Your task to perform on an android device: turn on bluetooth scan Image 0: 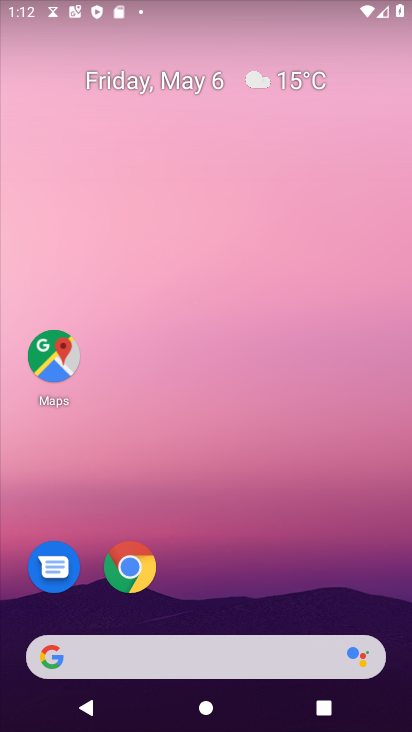
Step 0: drag from (281, 552) to (277, 124)
Your task to perform on an android device: turn on bluetooth scan Image 1: 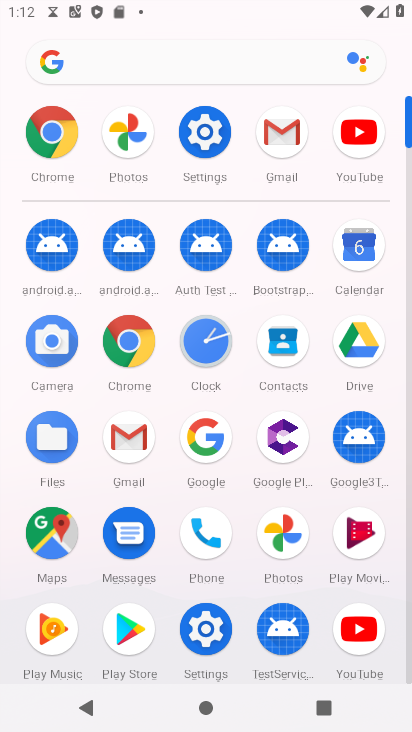
Step 1: click (192, 136)
Your task to perform on an android device: turn on bluetooth scan Image 2: 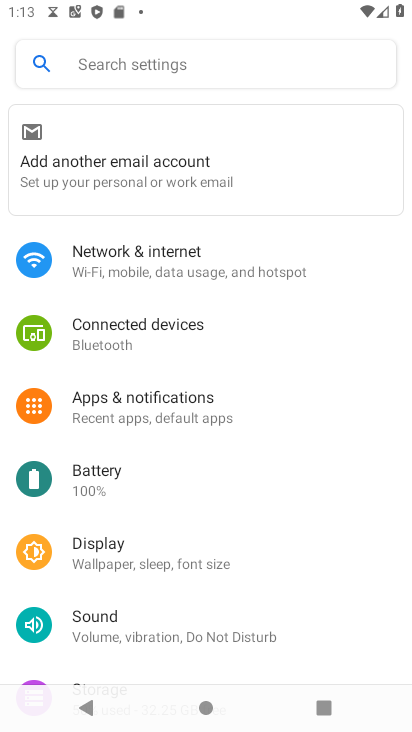
Step 2: drag from (181, 594) to (245, 230)
Your task to perform on an android device: turn on bluetooth scan Image 3: 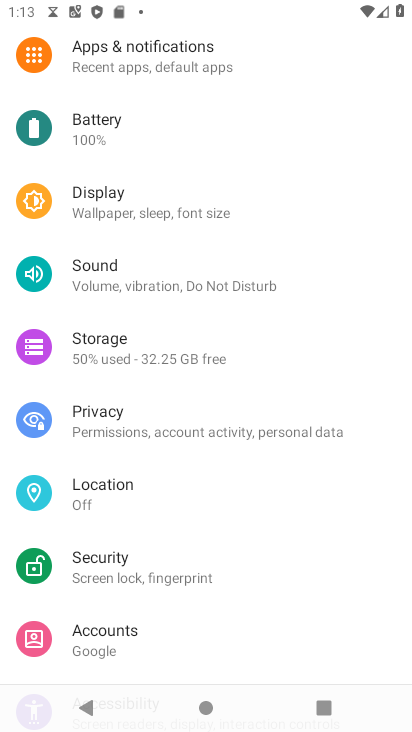
Step 3: drag from (260, 529) to (282, 237)
Your task to perform on an android device: turn on bluetooth scan Image 4: 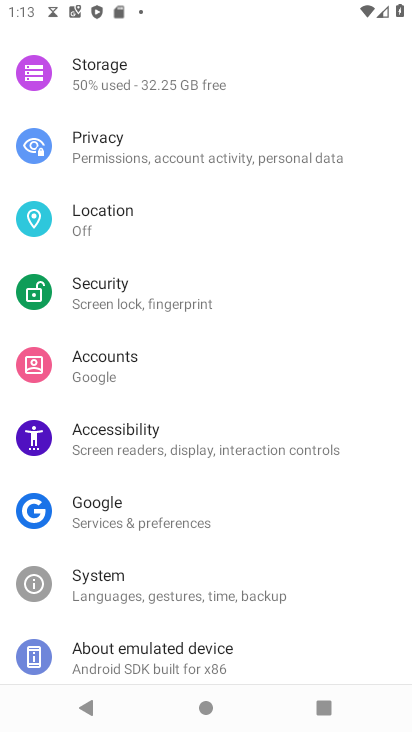
Step 4: drag from (282, 237) to (255, 554)
Your task to perform on an android device: turn on bluetooth scan Image 5: 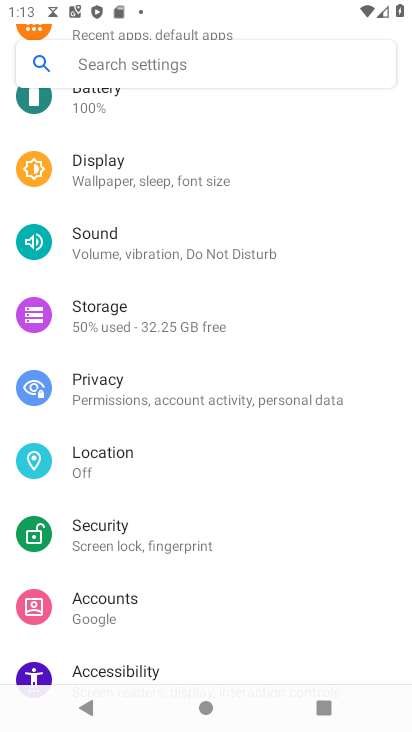
Step 5: click (128, 450)
Your task to perform on an android device: turn on bluetooth scan Image 6: 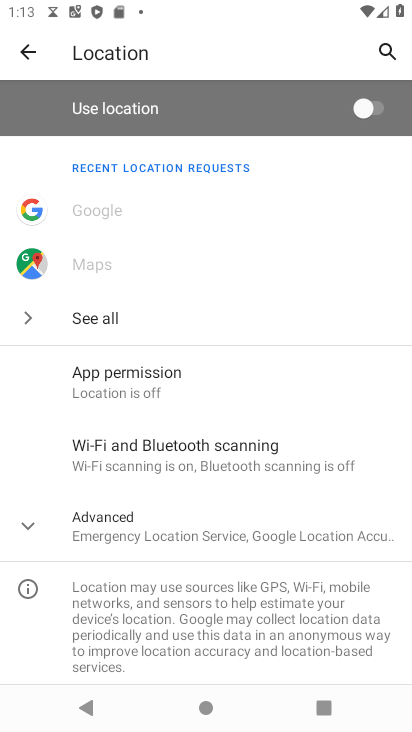
Step 6: click (118, 459)
Your task to perform on an android device: turn on bluetooth scan Image 7: 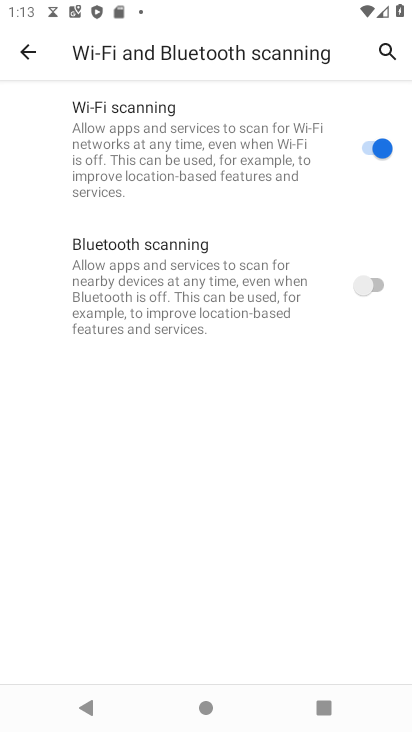
Step 7: click (372, 286)
Your task to perform on an android device: turn on bluetooth scan Image 8: 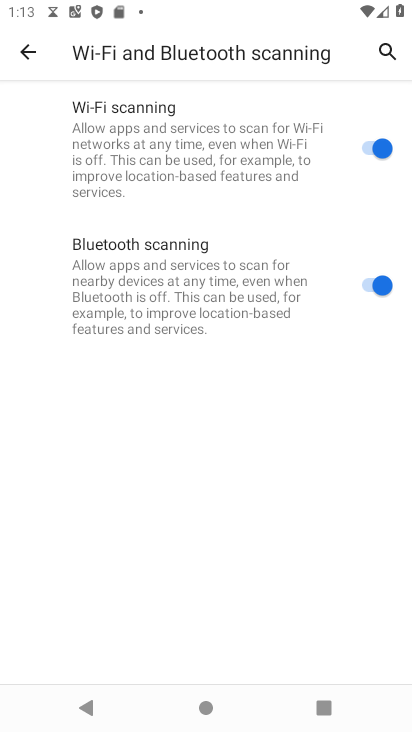
Step 8: task complete